Your task to perform on an android device: create a new album in the google photos Image 0: 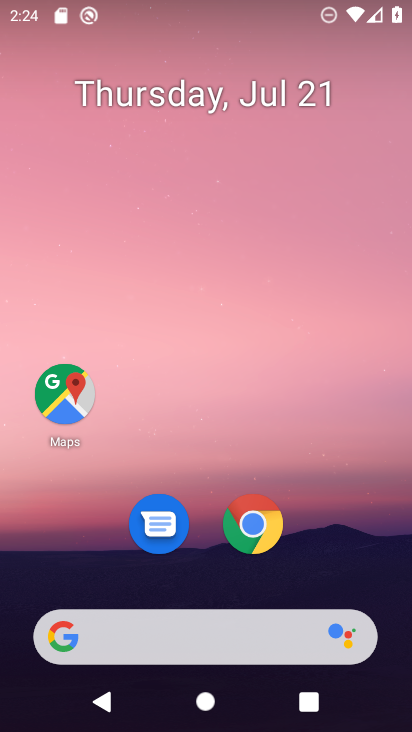
Step 0: drag from (208, 634) to (350, 101)
Your task to perform on an android device: create a new album in the google photos Image 1: 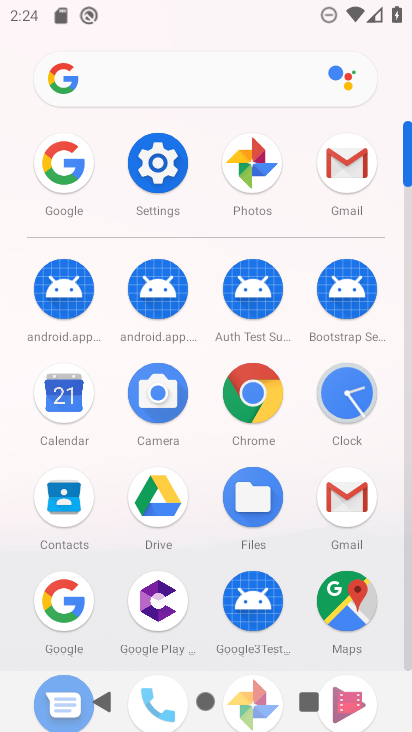
Step 1: drag from (213, 558) to (273, 153)
Your task to perform on an android device: create a new album in the google photos Image 2: 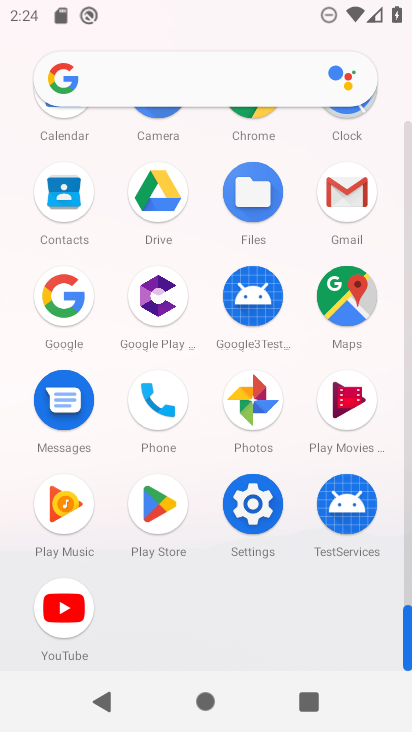
Step 2: click (251, 409)
Your task to perform on an android device: create a new album in the google photos Image 3: 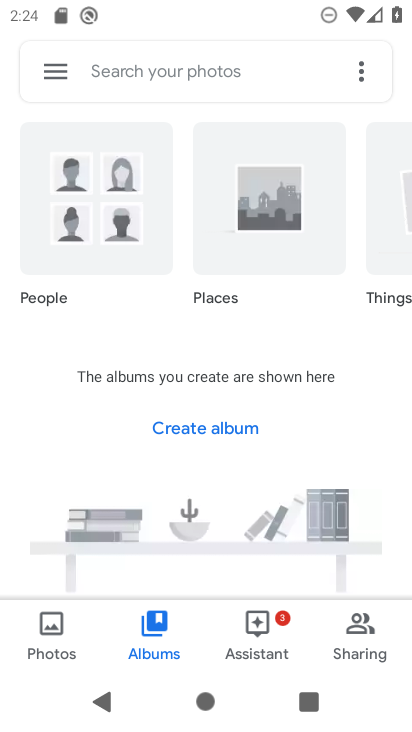
Step 3: task complete